Your task to perform on an android device: Go to Wikipedia Image 0: 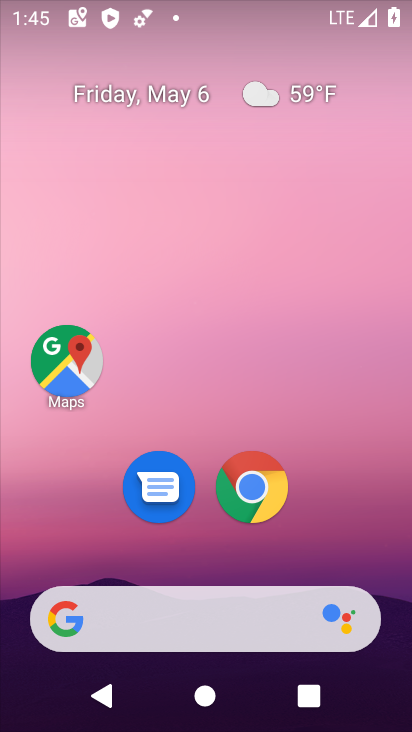
Step 0: drag from (235, 664) to (243, 221)
Your task to perform on an android device: Go to Wikipedia Image 1: 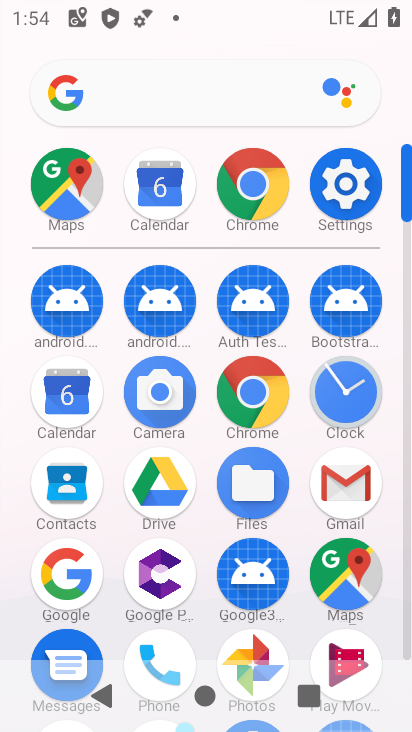
Step 1: click (264, 198)
Your task to perform on an android device: Go to Wikipedia Image 2: 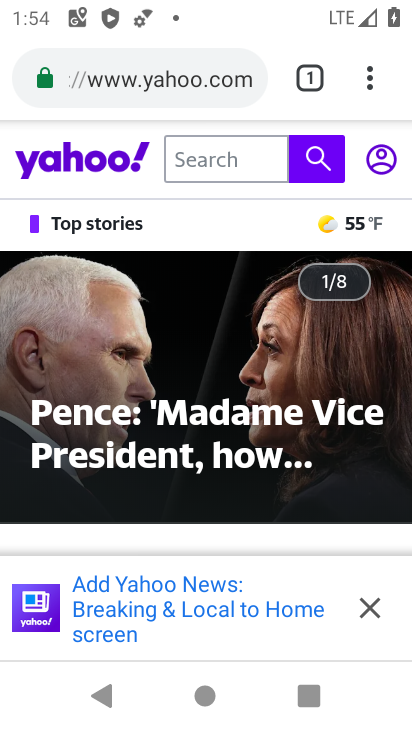
Step 2: click (216, 84)
Your task to perform on an android device: Go to Wikipedia Image 3: 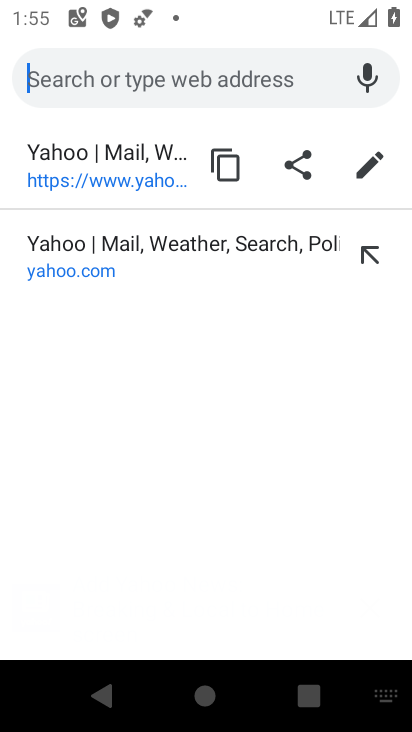
Step 3: type "wikipedia"
Your task to perform on an android device: Go to Wikipedia Image 4: 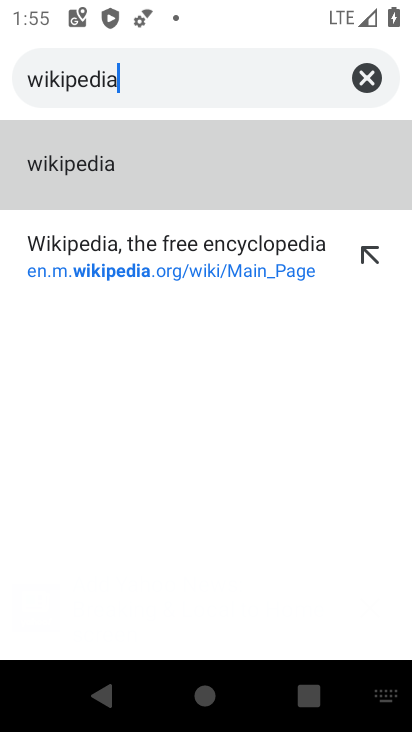
Step 4: click (182, 273)
Your task to perform on an android device: Go to Wikipedia Image 5: 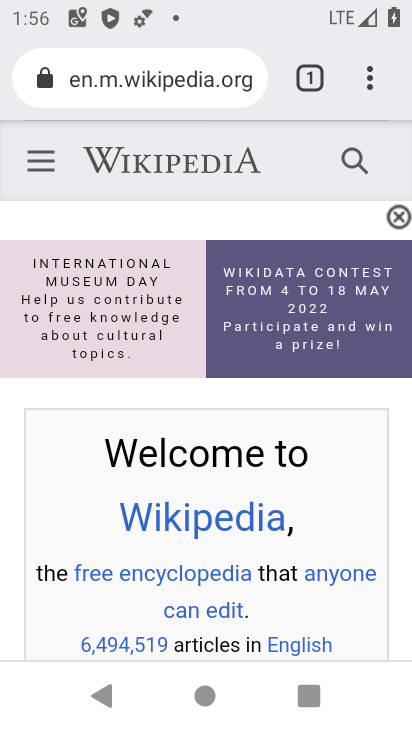
Step 5: task complete